Your task to perform on an android device: search for starred emails in the gmail app Image 0: 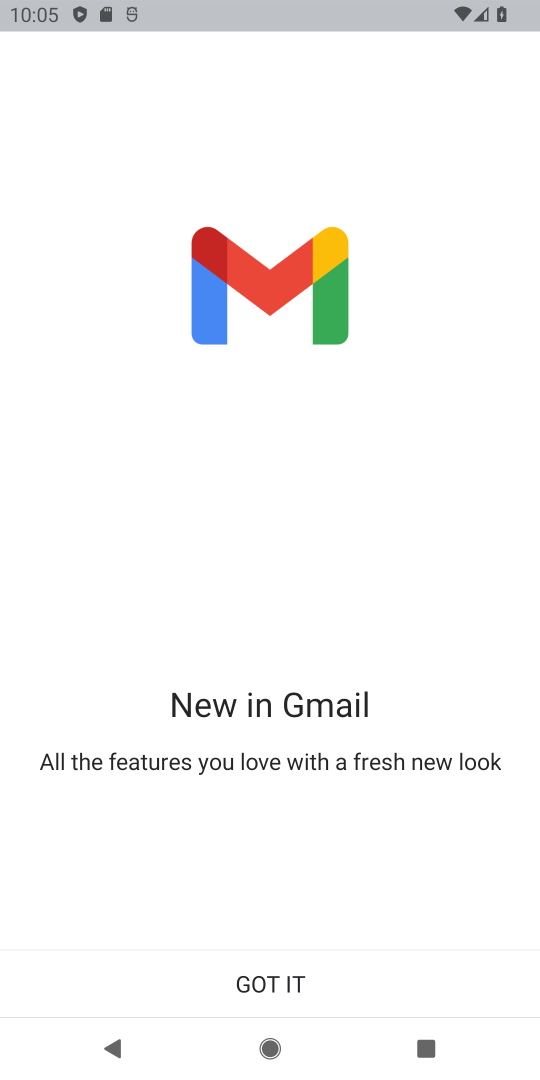
Step 0: press home button
Your task to perform on an android device: search for starred emails in the gmail app Image 1: 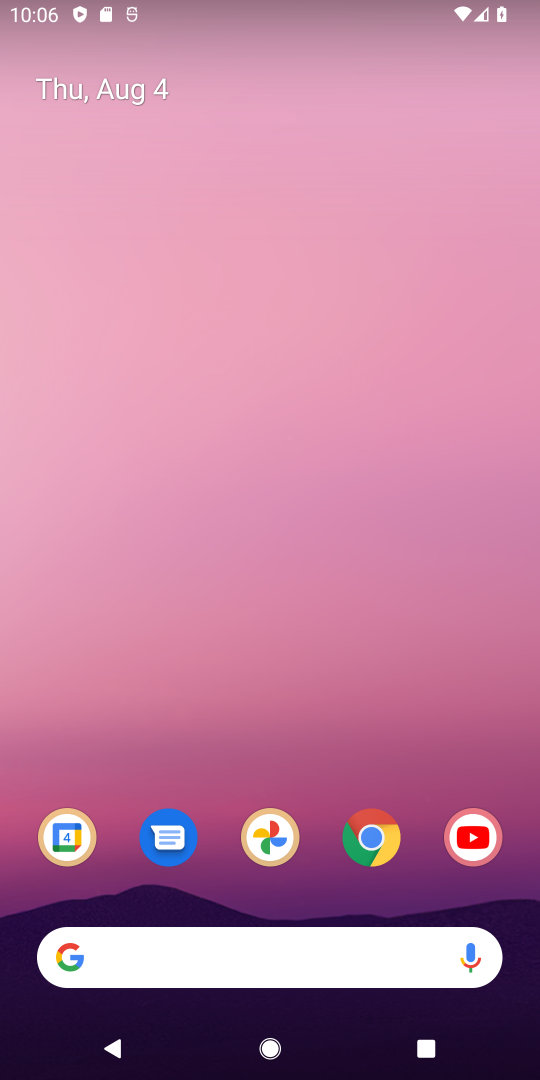
Step 1: drag from (319, 890) to (294, 3)
Your task to perform on an android device: search for starred emails in the gmail app Image 2: 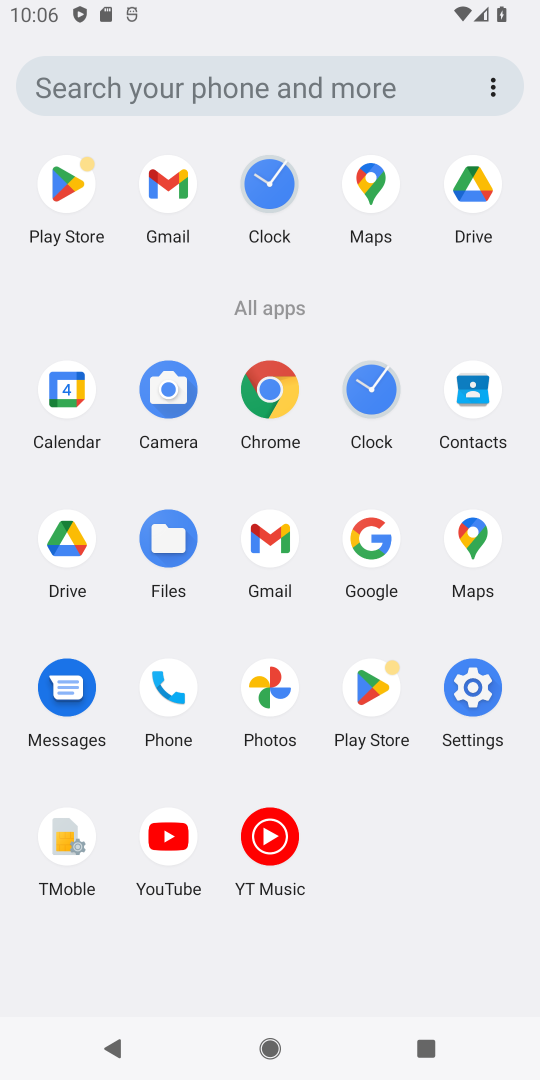
Step 2: click (157, 169)
Your task to perform on an android device: search for starred emails in the gmail app Image 3: 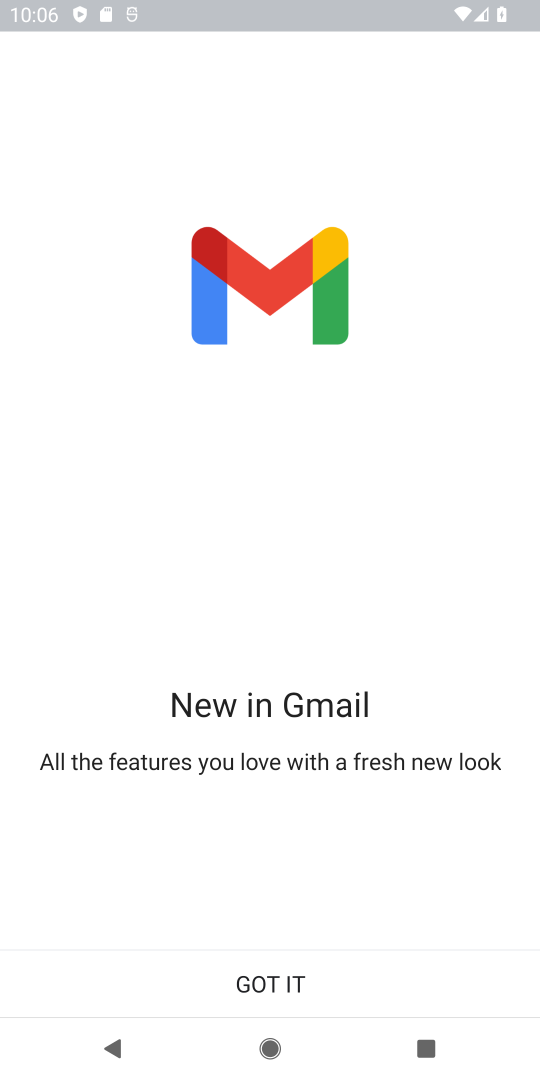
Step 3: click (270, 982)
Your task to perform on an android device: search for starred emails in the gmail app Image 4: 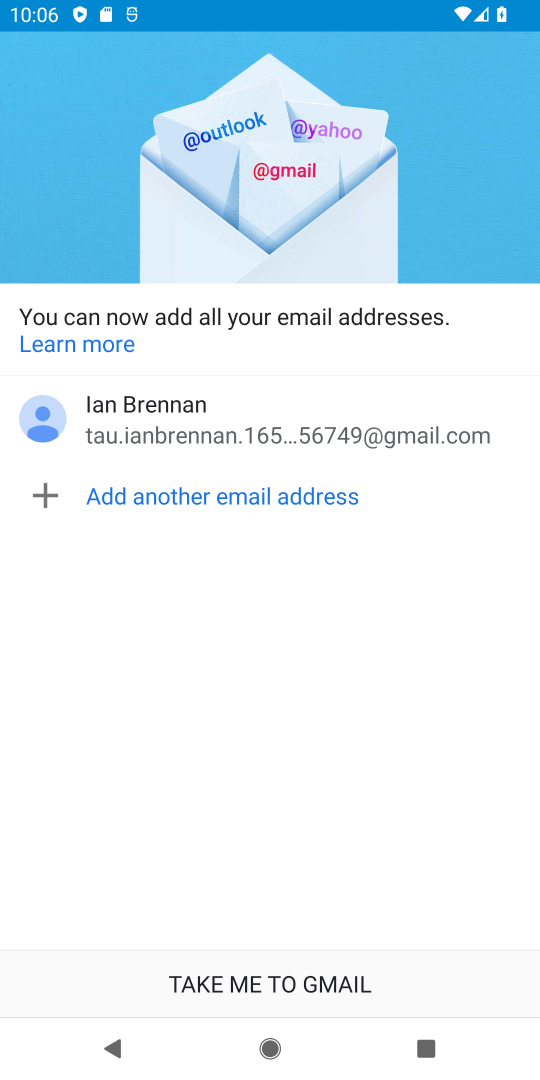
Step 4: click (270, 979)
Your task to perform on an android device: search for starred emails in the gmail app Image 5: 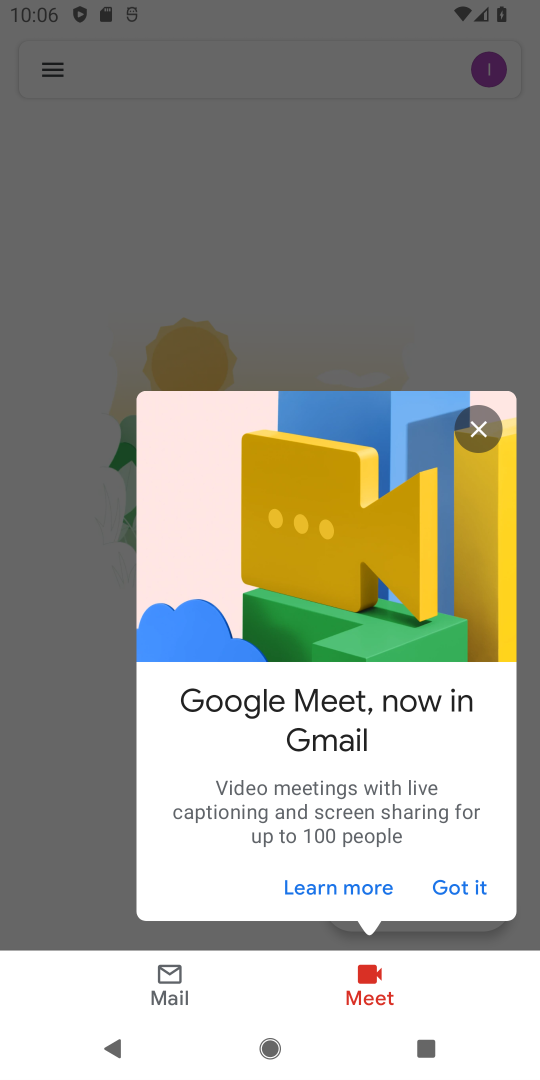
Step 5: click (475, 885)
Your task to perform on an android device: search for starred emails in the gmail app Image 6: 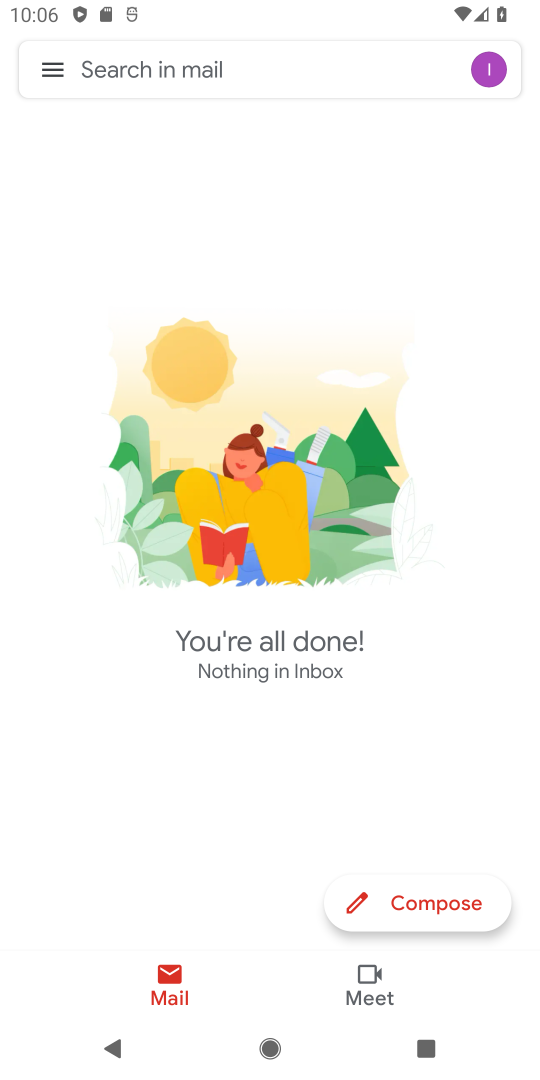
Step 6: click (38, 75)
Your task to perform on an android device: search for starred emails in the gmail app Image 7: 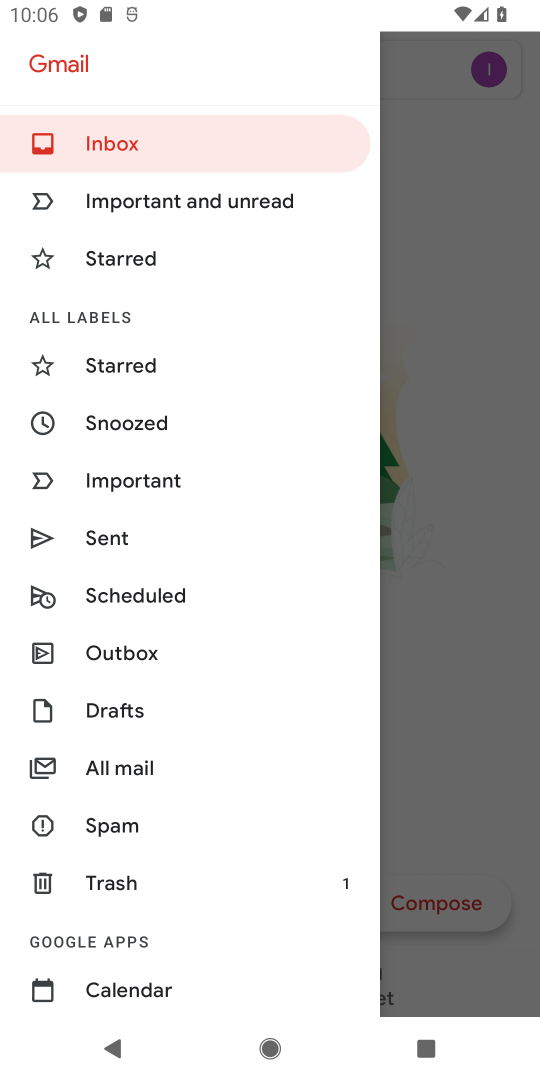
Step 7: click (128, 255)
Your task to perform on an android device: search for starred emails in the gmail app Image 8: 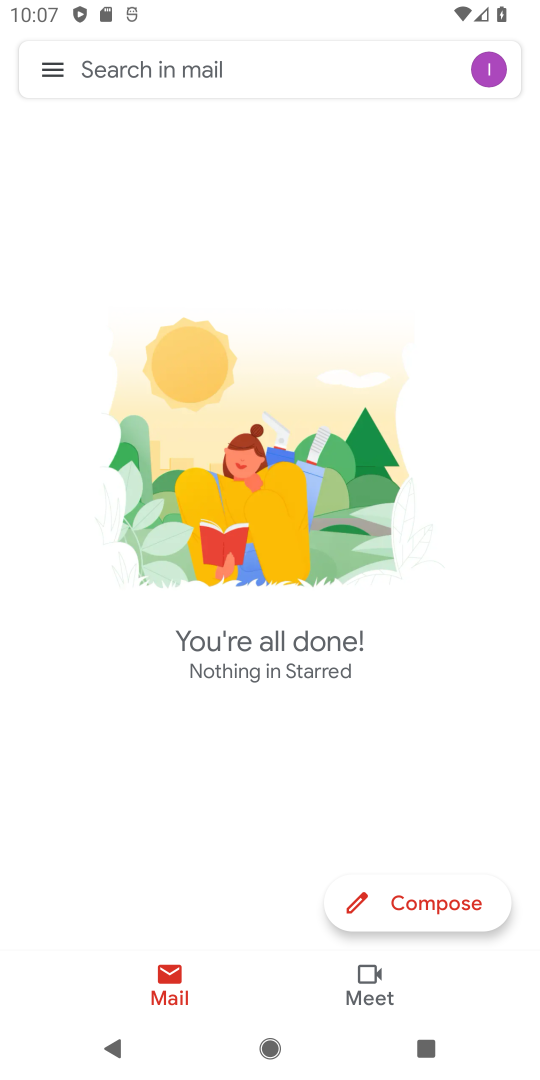
Step 8: task complete